Your task to perform on an android device: change text size in settings app Image 0: 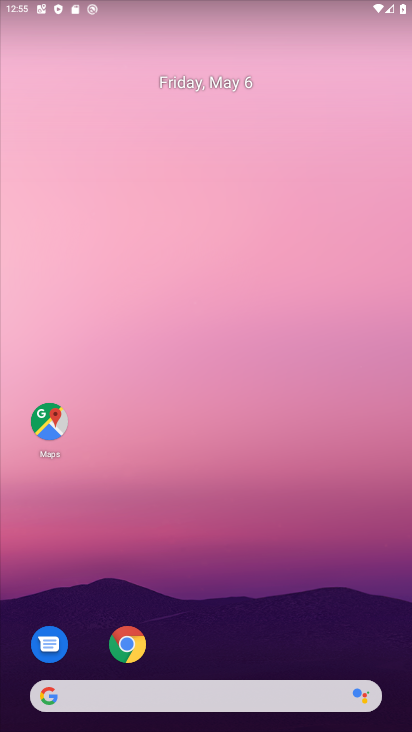
Step 0: drag from (214, 729) to (212, 58)
Your task to perform on an android device: change text size in settings app Image 1: 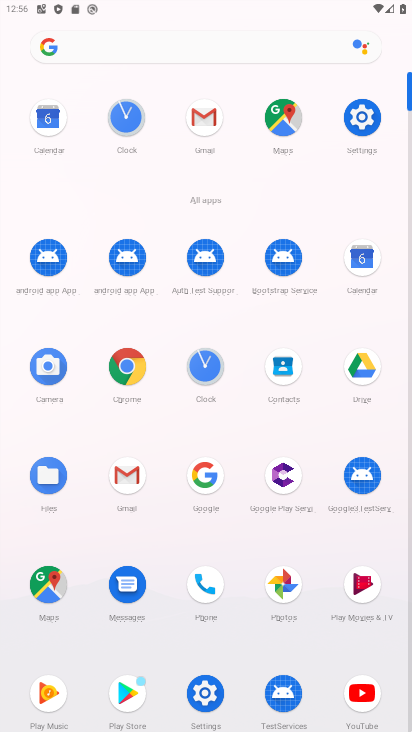
Step 1: click (377, 114)
Your task to perform on an android device: change text size in settings app Image 2: 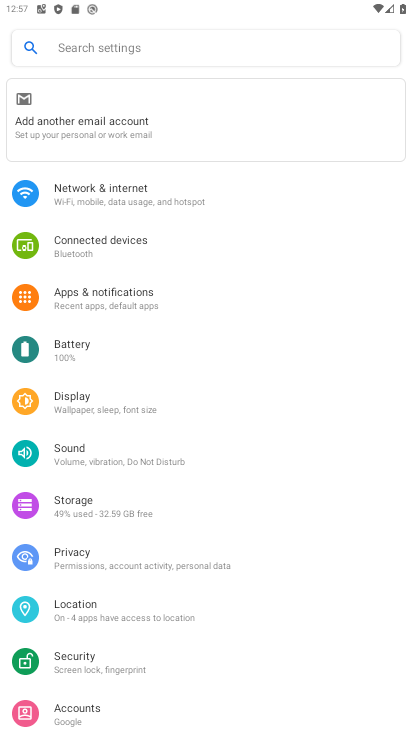
Step 2: click (139, 409)
Your task to perform on an android device: change text size in settings app Image 3: 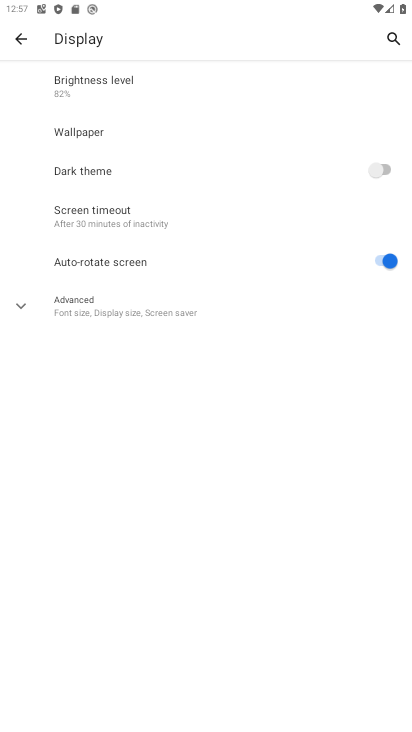
Step 3: click (91, 310)
Your task to perform on an android device: change text size in settings app Image 4: 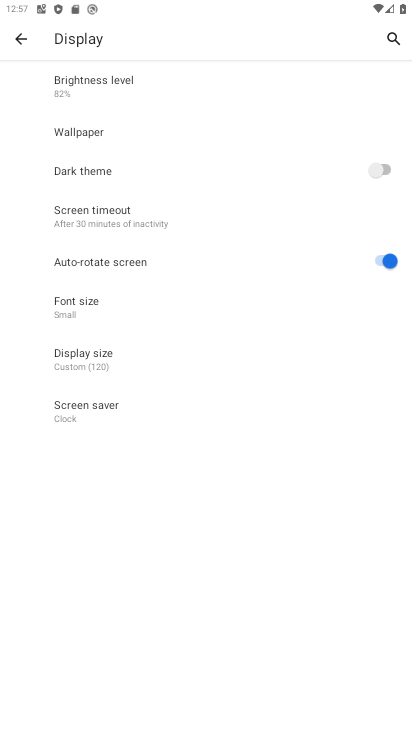
Step 4: click (75, 311)
Your task to perform on an android device: change text size in settings app Image 5: 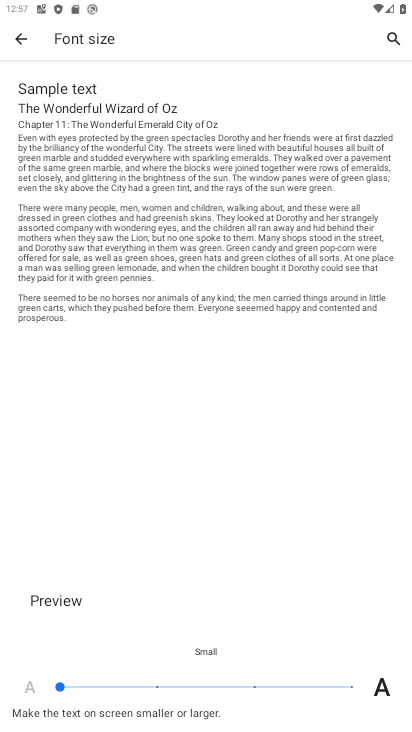
Step 5: click (158, 687)
Your task to perform on an android device: change text size in settings app Image 6: 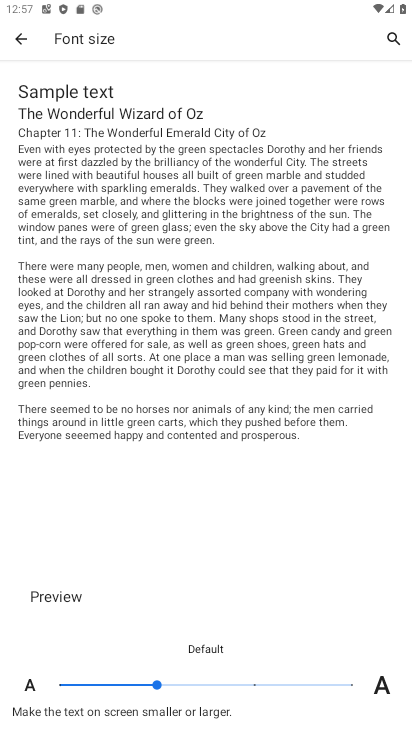
Step 6: task complete